Your task to perform on an android device: open chrome and create a bookmark for the current page Image 0: 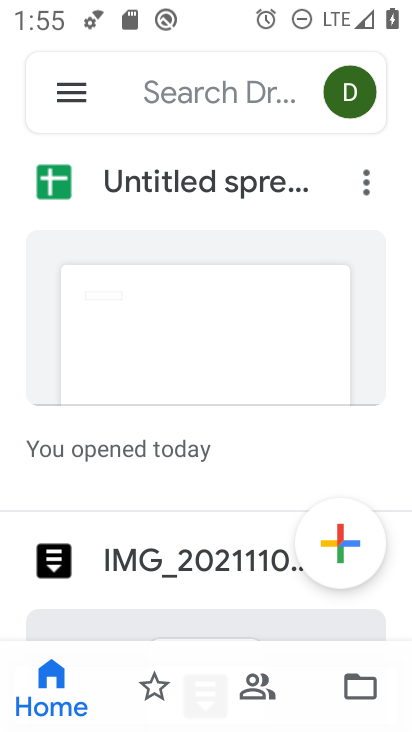
Step 0: press home button
Your task to perform on an android device: open chrome and create a bookmark for the current page Image 1: 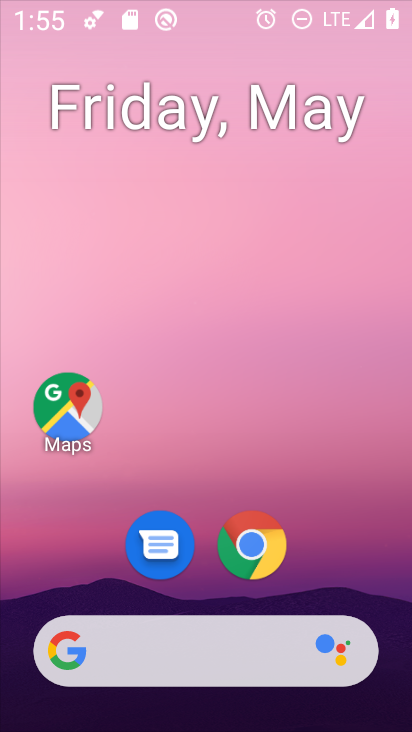
Step 1: drag from (344, 597) to (350, 273)
Your task to perform on an android device: open chrome and create a bookmark for the current page Image 2: 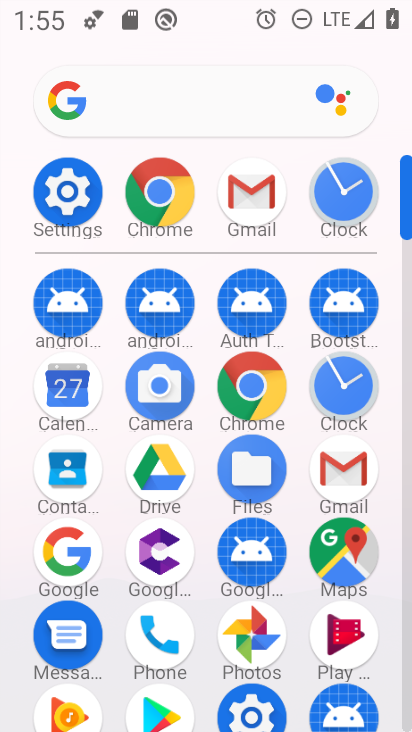
Step 2: click (157, 188)
Your task to perform on an android device: open chrome and create a bookmark for the current page Image 3: 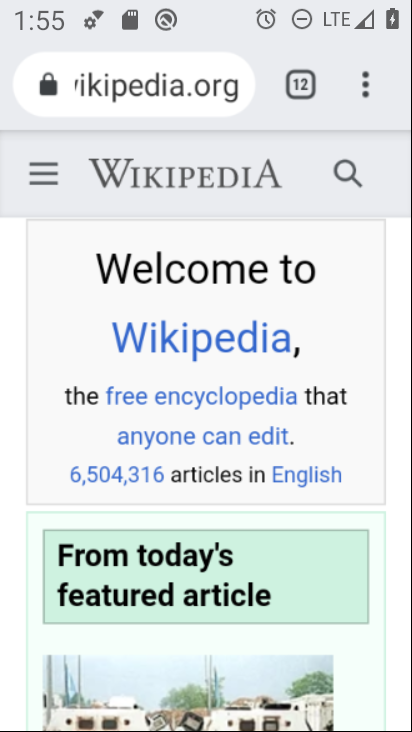
Step 3: click (358, 85)
Your task to perform on an android device: open chrome and create a bookmark for the current page Image 4: 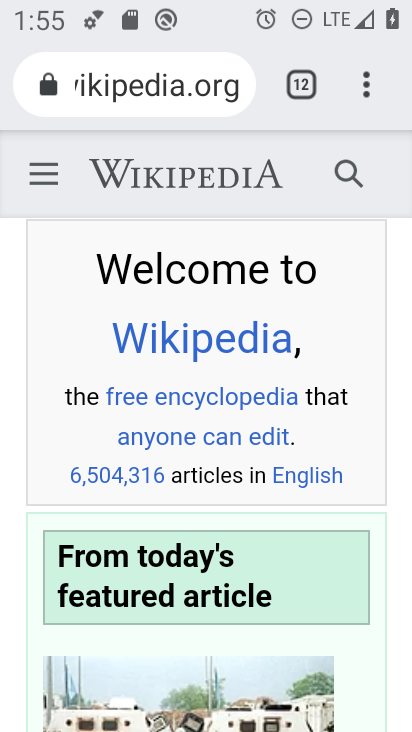
Step 4: click (346, 85)
Your task to perform on an android device: open chrome and create a bookmark for the current page Image 5: 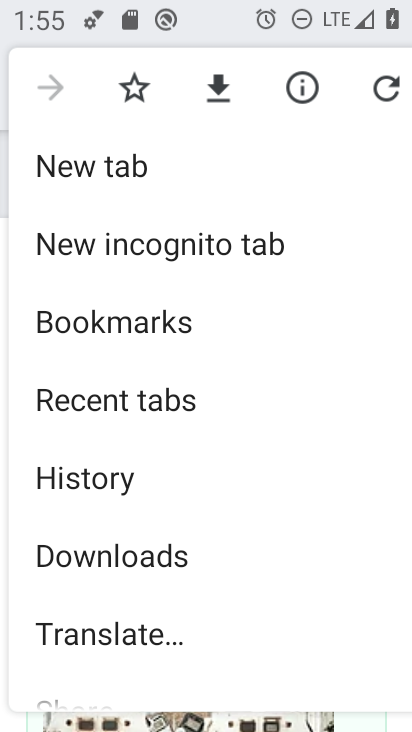
Step 5: click (139, 84)
Your task to perform on an android device: open chrome and create a bookmark for the current page Image 6: 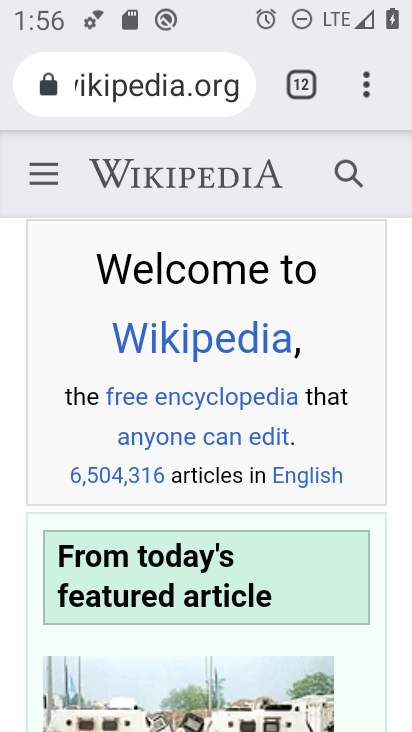
Step 6: task complete